Your task to perform on an android device: check out phone information Image 0: 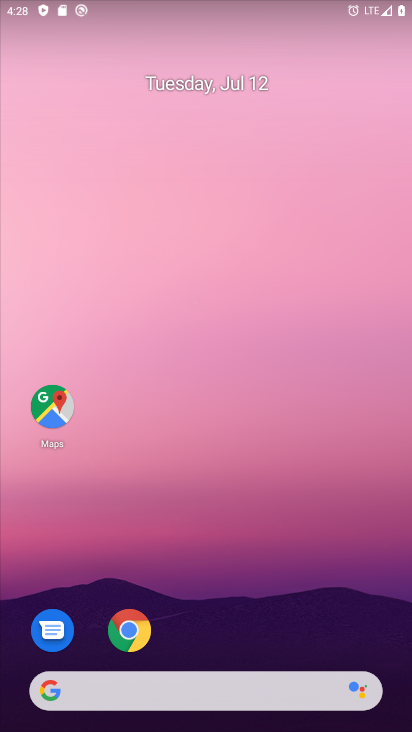
Step 0: drag from (228, 386) to (163, 126)
Your task to perform on an android device: check out phone information Image 1: 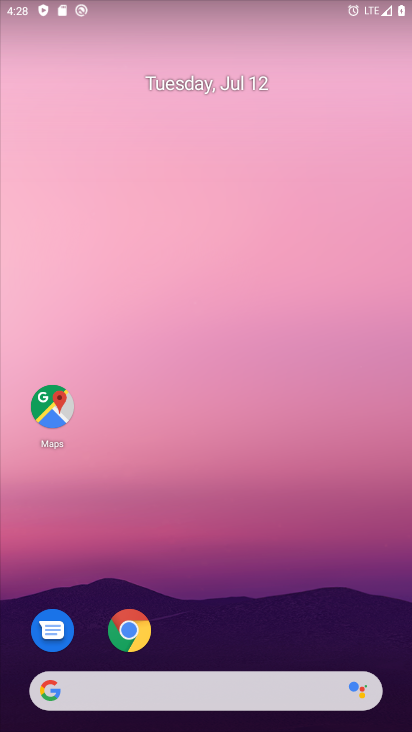
Step 1: drag from (256, 674) to (140, 176)
Your task to perform on an android device: check out phone information Image 2: 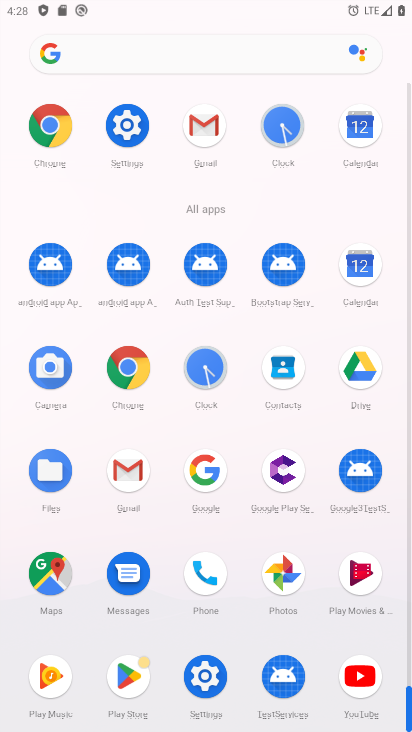
Step 2: drag from (261, 667) to (119, 141)
Your task to perform on an android device: check out phone information Image 3: 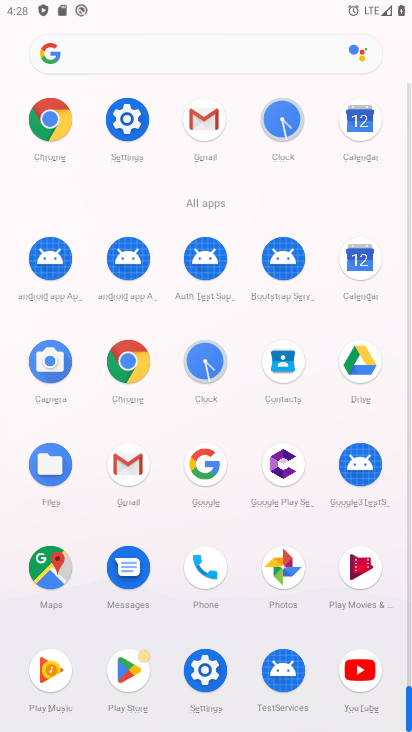
Step 3: click (125, 111)
Your task to perform on an android device: check out phone information Image 4: 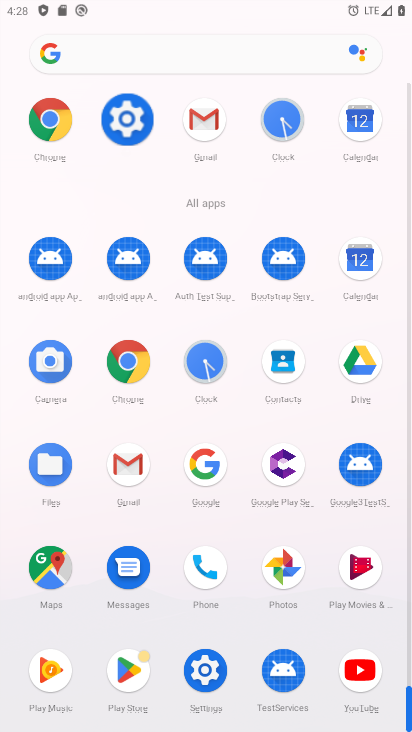
Step 4: click (127, 112)
Your task to perform on an android device: check out phone information Image 5: 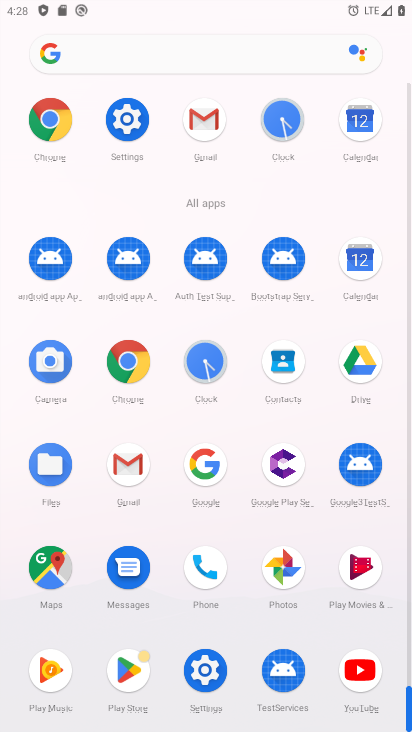
Step 5: click (133, 113)
Your task to perform on an android device: check out phone information Image 6: 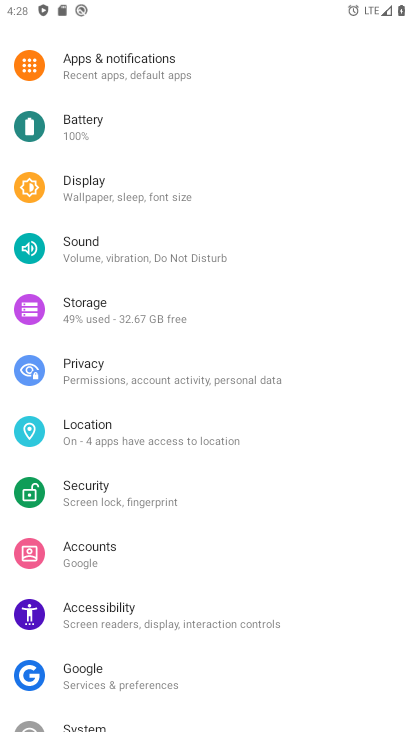
Step 6: click (120, 119)
Your task to perform on an android device: check out phone information Image 7: 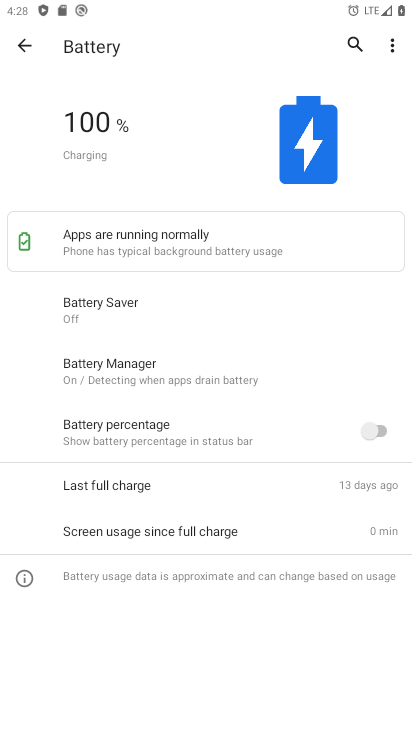
Step 7: click (21, 39)
Your task to perform on an android device: check out phone information Image 8: 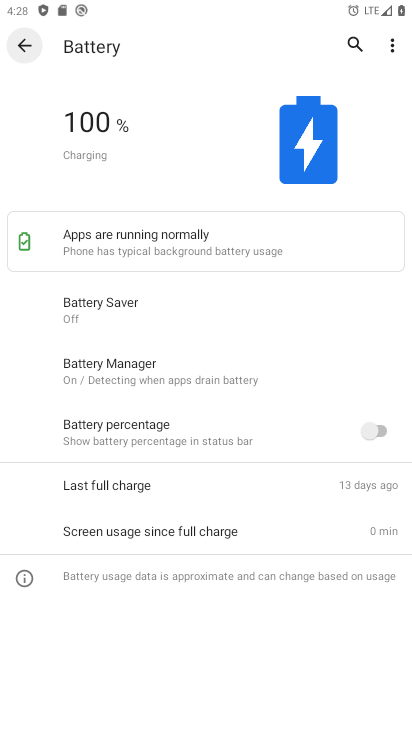
Step 8: click (21, 39)
Your task to perform on an android device: check out phone information Image 9: 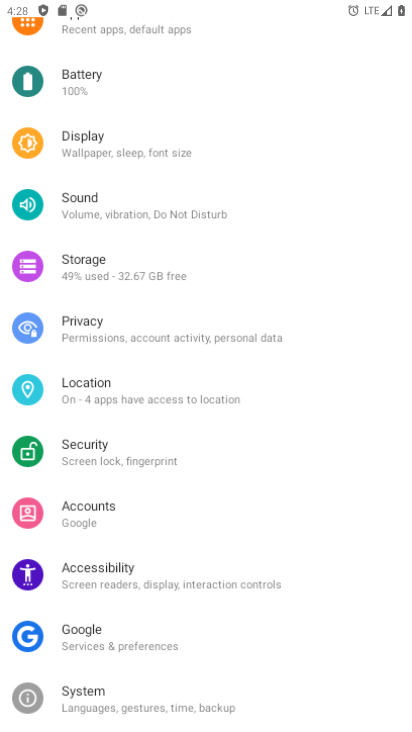
Step 9: click (23, 42)
Your task to perform on an android device: check out phone information Image 10: 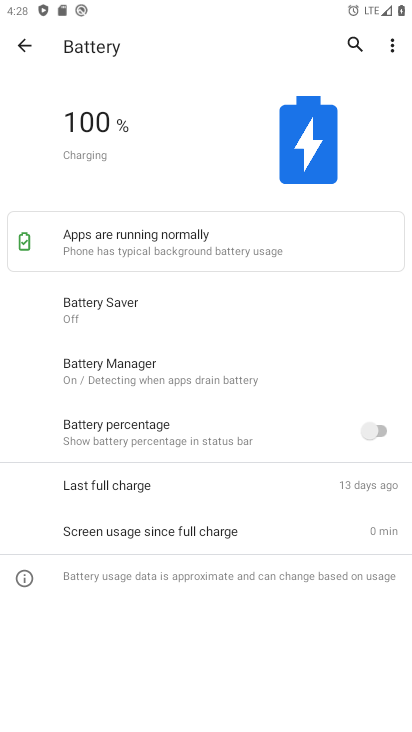
Step 10: click (22, 57)
Your task to perform on an android device: check out phone information Image 11: 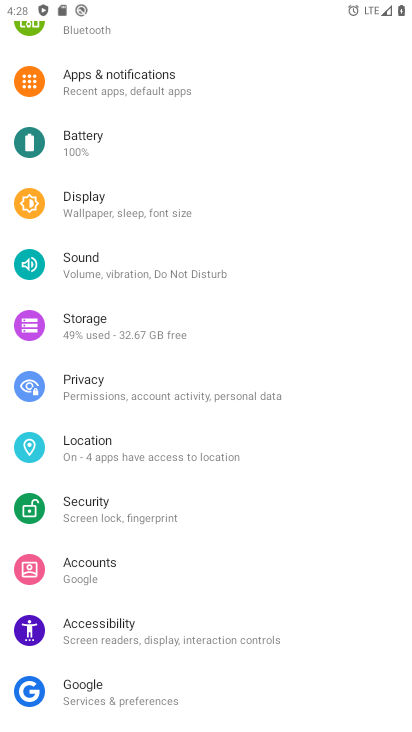
Step 11: click (102, 449)
Your task to perform on an android device: check out phone information Image 12: 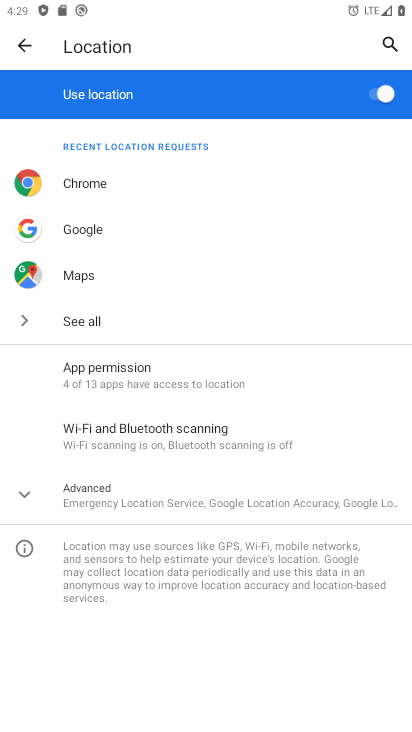
Step 12: click (250, 503)
Your task to perform on an android device: check out phone information Image 13: 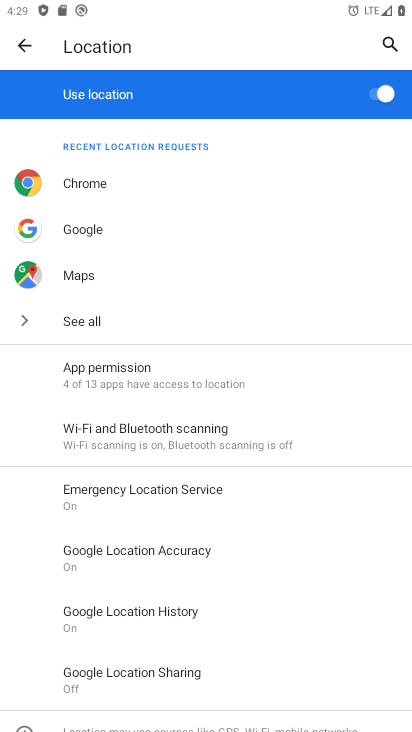
Step 13: click (107, 368)
Your task to perform on an android device: check out phone information Image 14: 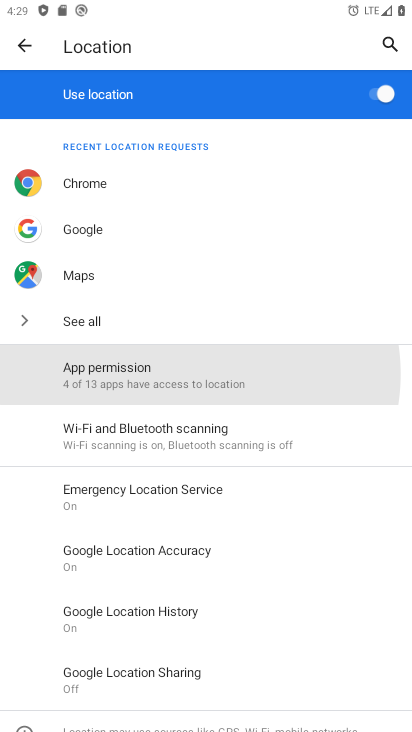
Step 14: click (107, 368)
Your task to perform on an android device: check out phone information Image 15: 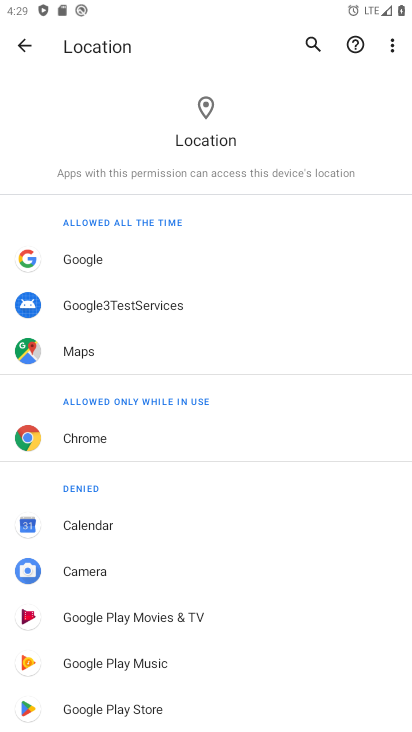
Step 15: task complete